Your task to perform on an android device: turn pop-ups off in chrome Image 0: 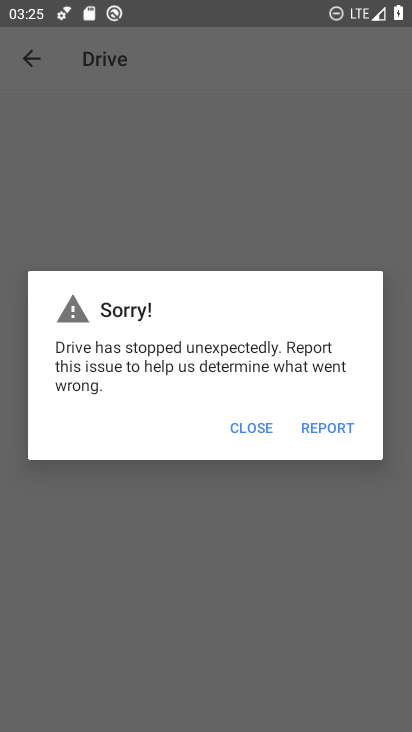
Step 0: press home button
Your task to perform on an android device: turn pop-ups off in chrome Image 1: 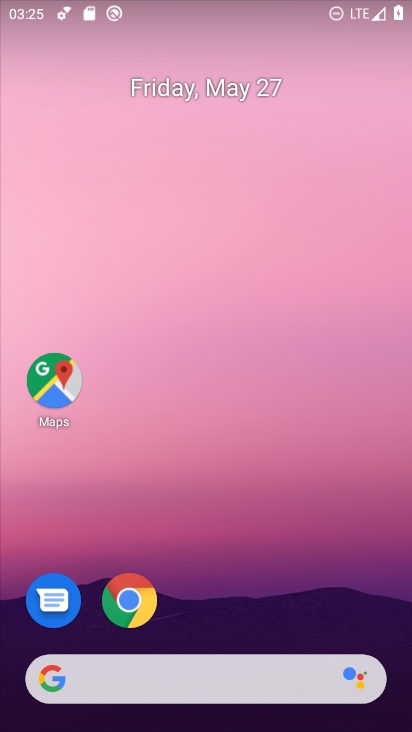
Step 1: click (132, 601)
Your task to perform on an android device: turn pop-ups off in chrome Image 2: 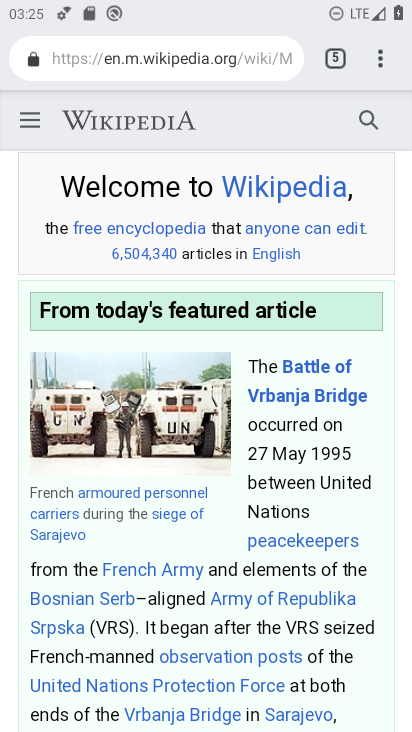
Step 2: click (381, 65)
Your task to perform on an android device: turn pop-ups off in chrome Image 3: 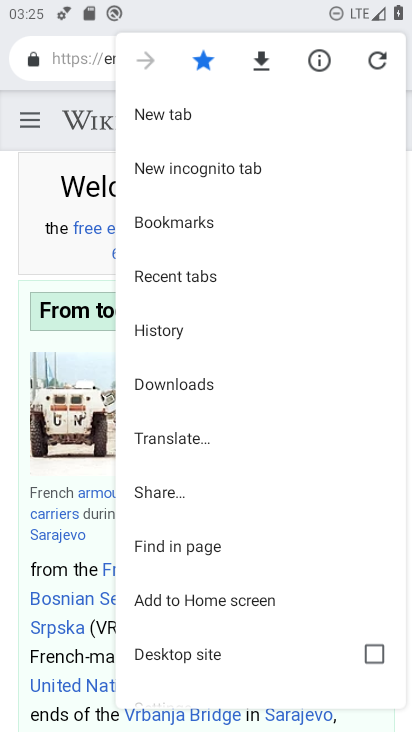
Step 3: drag from (213, 627) to (204, 237)
Your task to perform on an android device: turn pop-ups off in chrome Image 4: 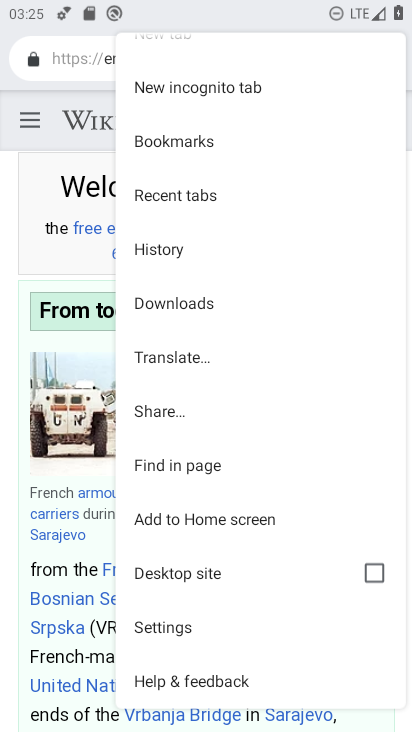
Step 4: click (188, 623)
Your task to perform on an android device: turn pop-ups off in chrome Image 5: 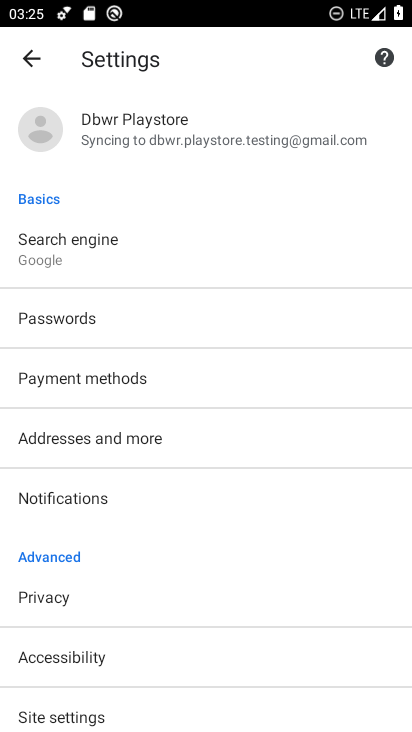
Step 5: drag from (161, 682) to (113, 245)
Your task to perform on an android device: turn pop-ups off in chrome Image 6: 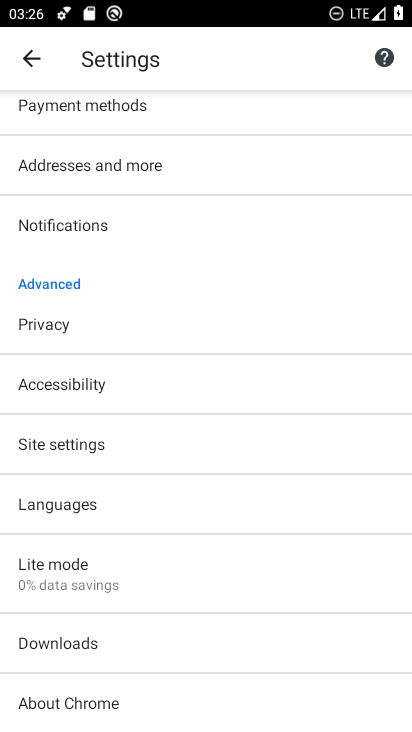
Step 6: click (60, 440)
Your task to perform on an android device: turn pop-ups off in chrome Image 7: 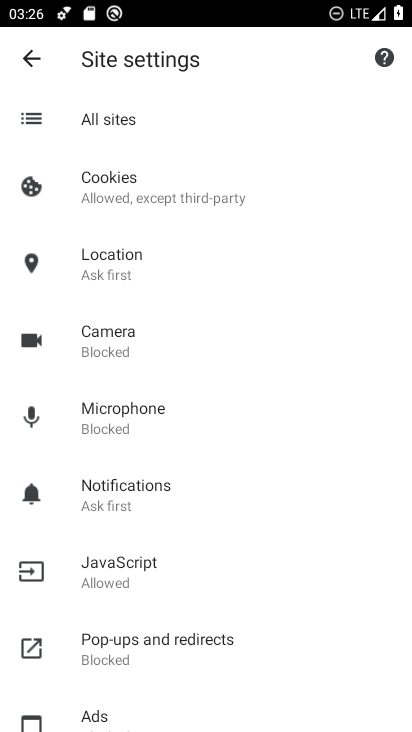
Step 7: drag from (118, 703) to (94, 347)
Your task to perform on an android device: turn pop-ups off in chrome Image 8: 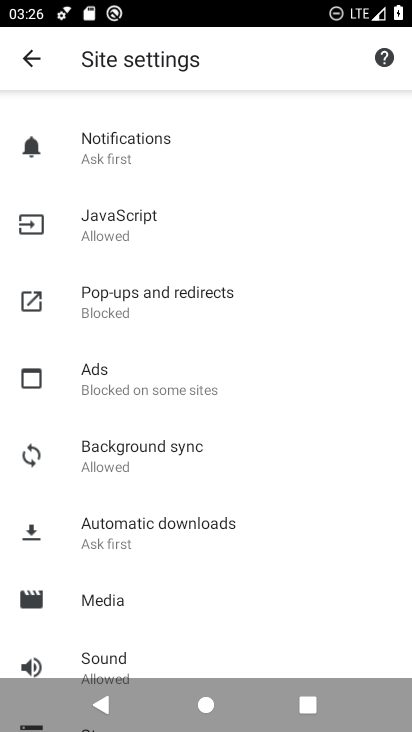
Step 8: click (141, 298)
Your task to perform on an android device: turn pop-ups off in chrome Image 9: 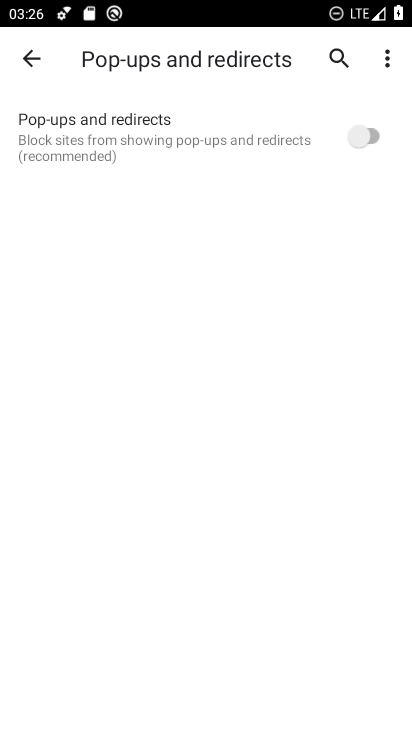
Step 9: task complete